Your task to perform on an android device: set the timer Image 0: 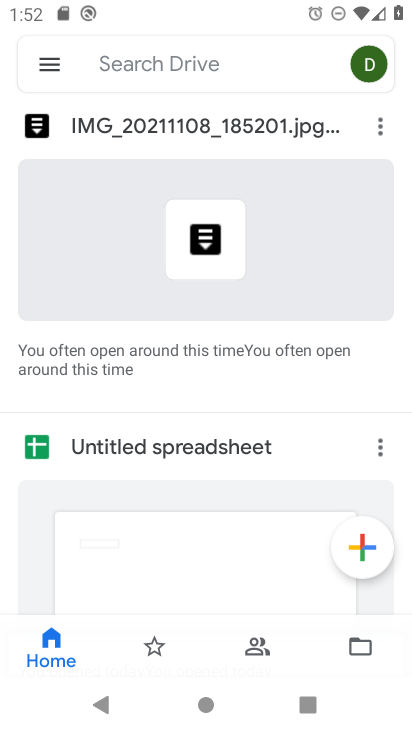
Step 0: press home button
Your task to perform on an android device: set the timer Image 1: 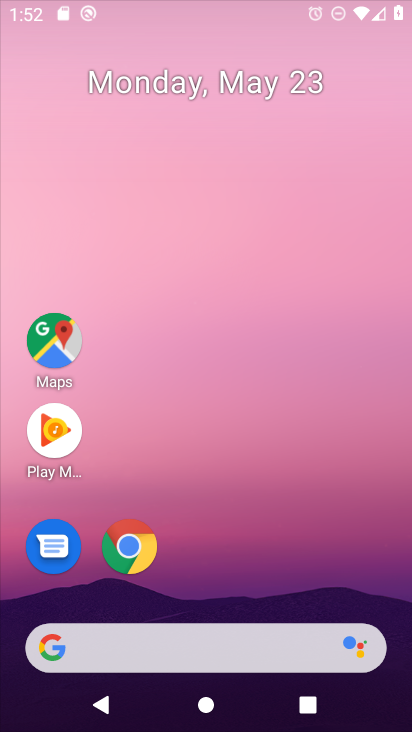
Step 1: drag from (258, 583) to (244, 91)
Your task to perform on an android device: set the timer Image 2: 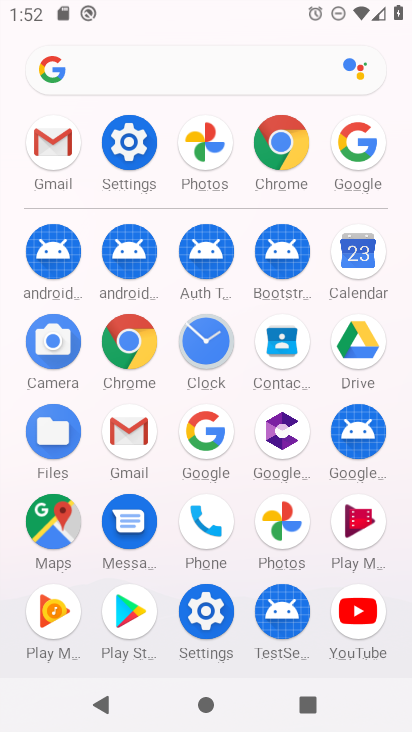
Step 2: click (214, 357)
Your task to perform on an android device: set the timer Image 3: 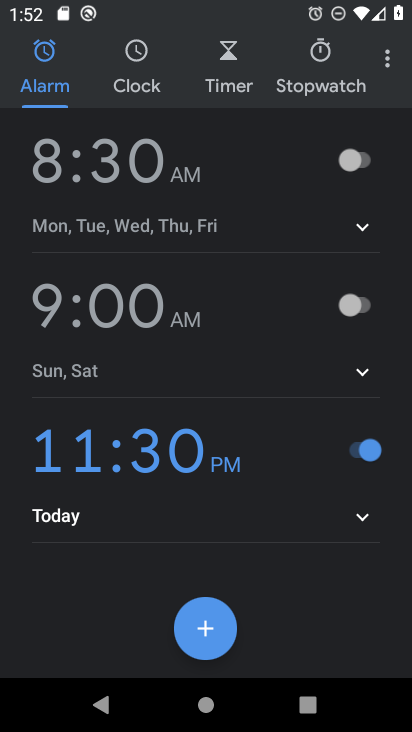
Step 3: click (222, 78)
Your task to perform on an android device: set the timer Image 4: 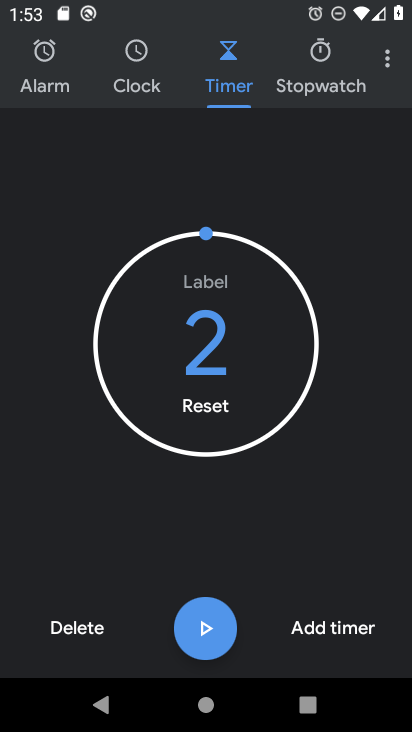
Step 4: task complete